Your task to perform on an android device: Set the phone to "Do not disturb". Image 0: 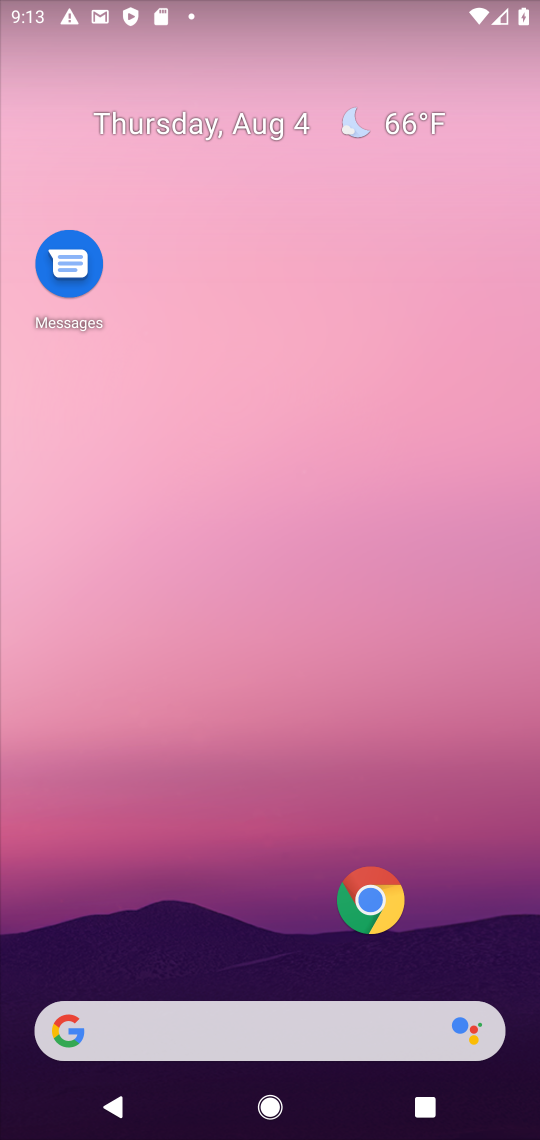
Step 0: click (316, 995)
Your task to perform on an android device: Set the phone to "Do not disturb". Image 1: 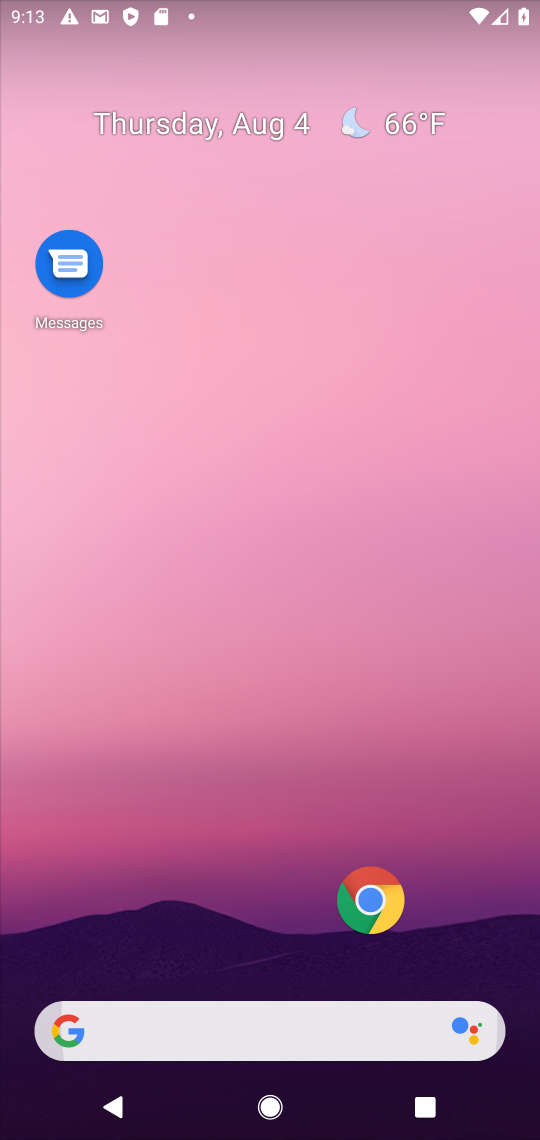
Step 1: drag from (316, 995) to (275, 128)
Your task to perform on an android device: Set the phone to "Do not disturb". Image 2: 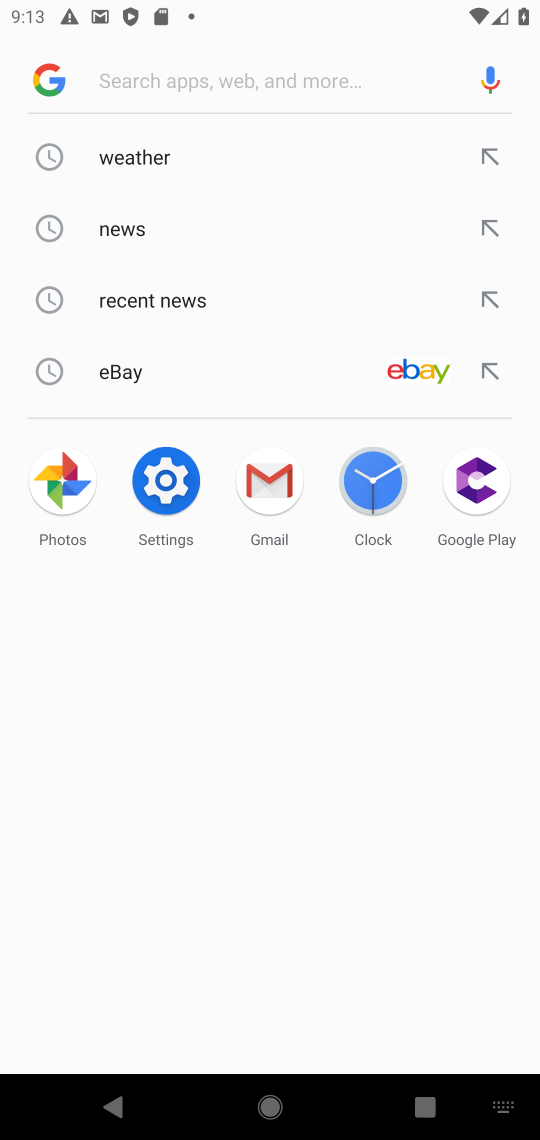
Step 2: press home button
Your task to perform on an android device: Set the phone to "Do not disturb". Image 3: 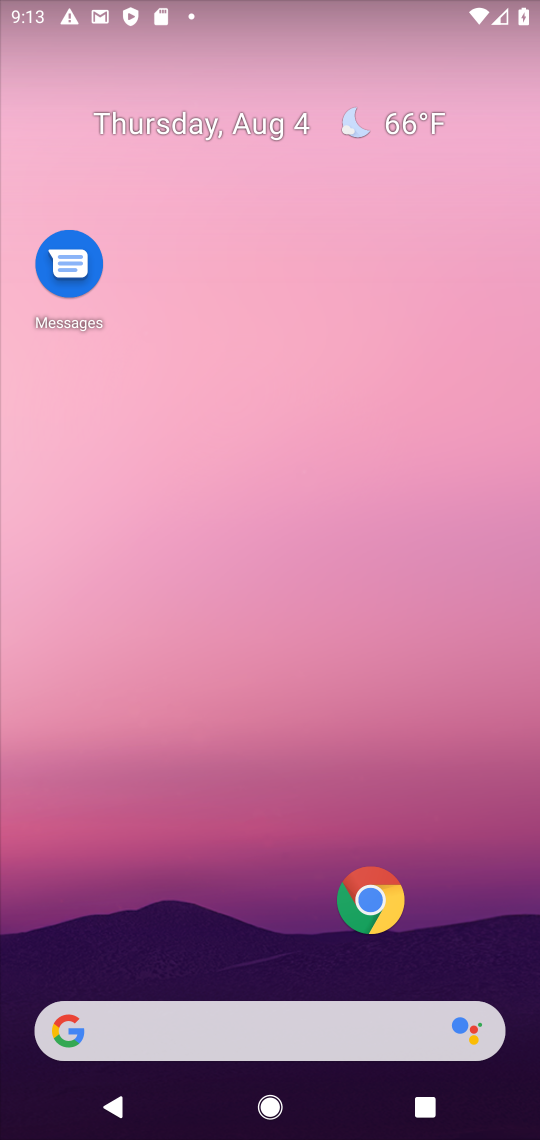
Step 3: drag from (272, 1020) to (225, 4)
Your task to perform on an android device: Set the phone to "Do not disturb". Image 4: 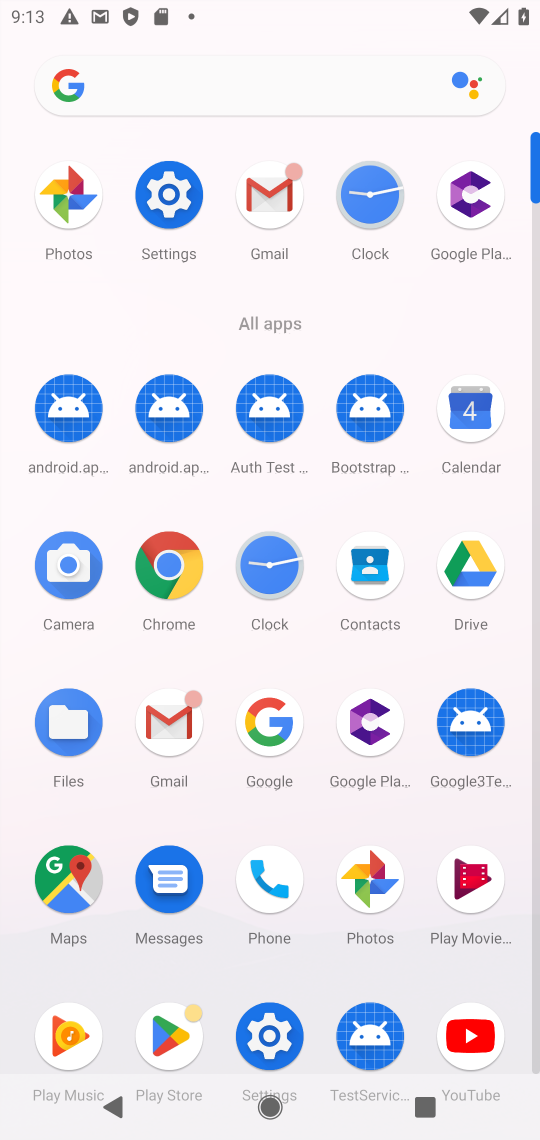
Step 4: click (160, 190)
Your task to perform on an android device: Set the phone to "Do not disturb". Image 5: 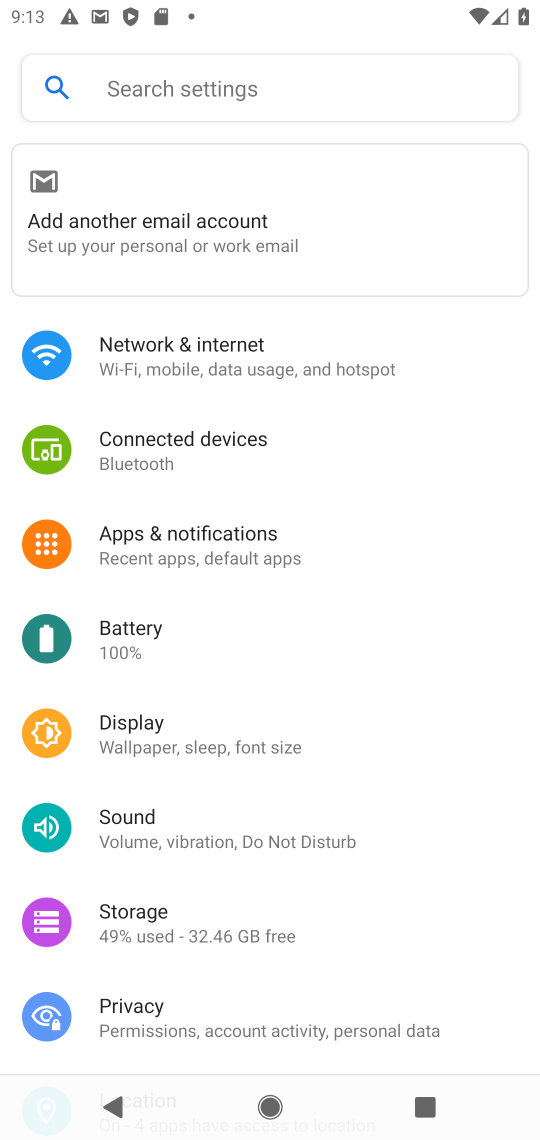
Step 5: click (217, 815)
Your task to perform on an android device: Set the phone to "Do not disturb". Image 6: 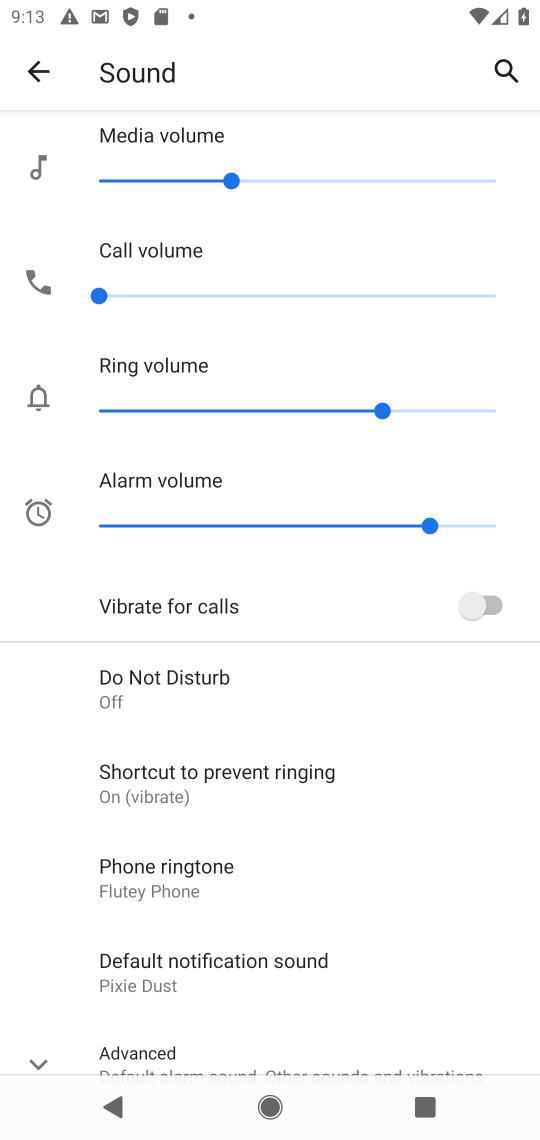
Step 6: click (204, 678)
Your task to perform on an android device: Set the phone to "Do not disturb". Image 7: 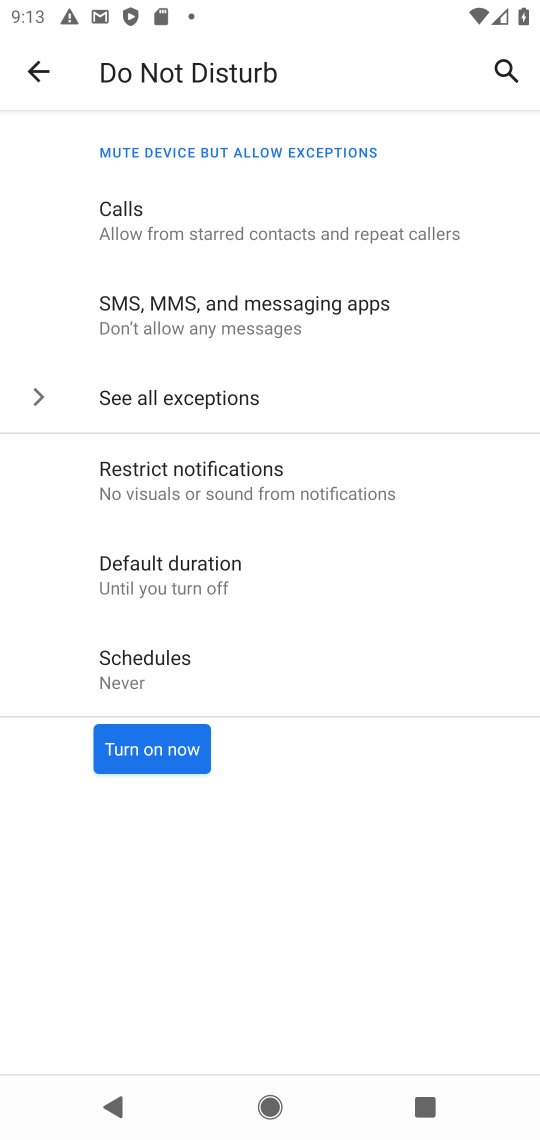
Step 7: click (141, 734)
Your task to perform on an android device: Set the phone to "Do not disturb". Image 8: 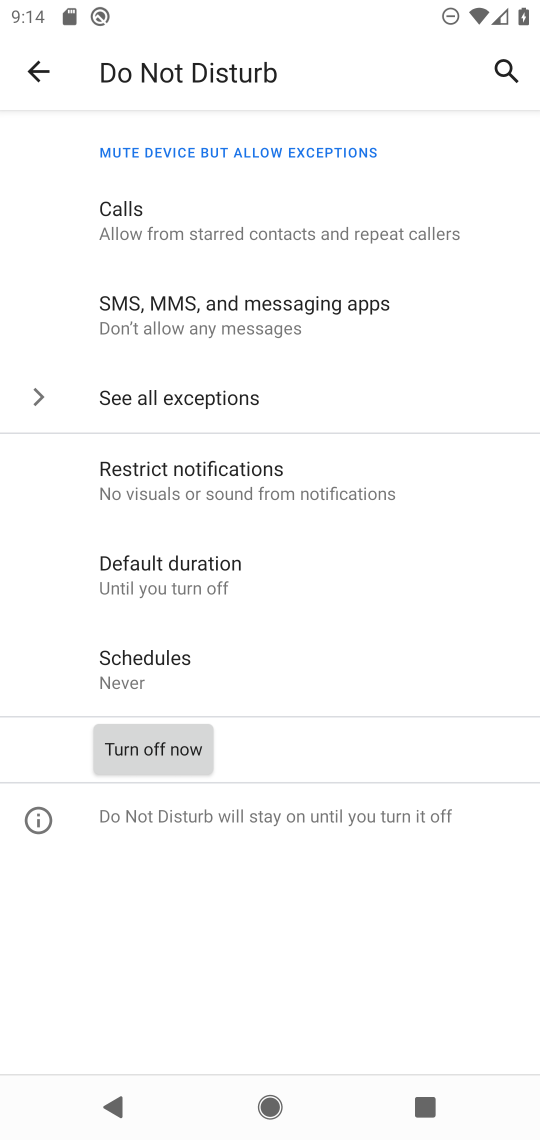
Step 8: task complete